Your task to perform on an android device: change text size in settings app Image 0: 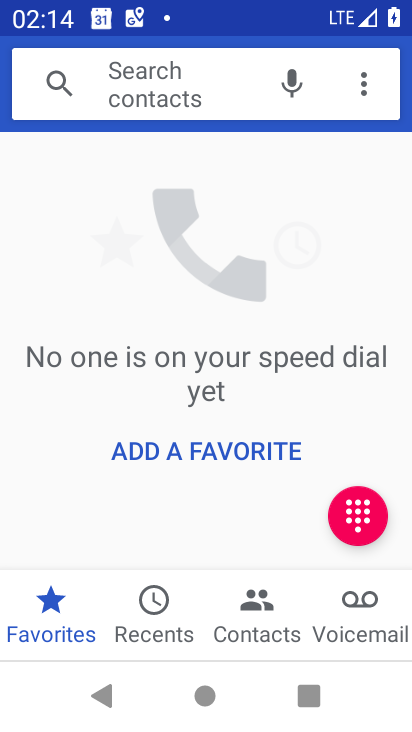
Step 0: press home button
Your task to perform on an android device: change text size in settings app Image 1: 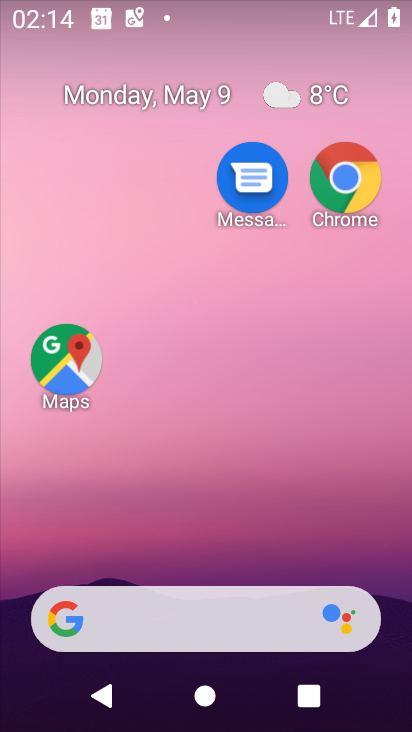
Step 1: drag from (261, 509) to (311, 1)
Your task to perform on an android device: change text size in settings app Image 2: 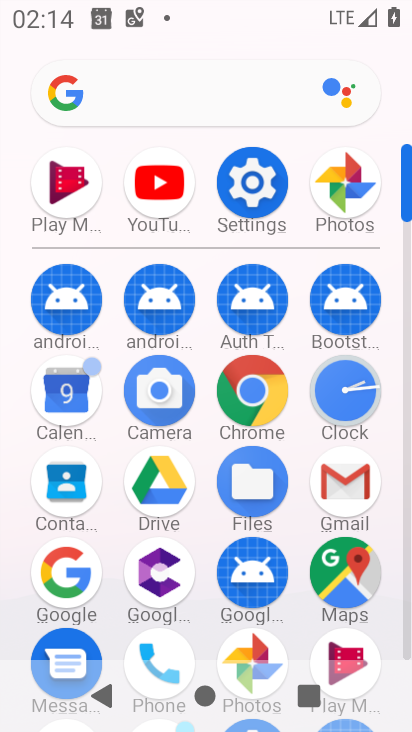
Step 2: click (247, 166)
Your task to perform on an android device: change text size in settings app Image 3: 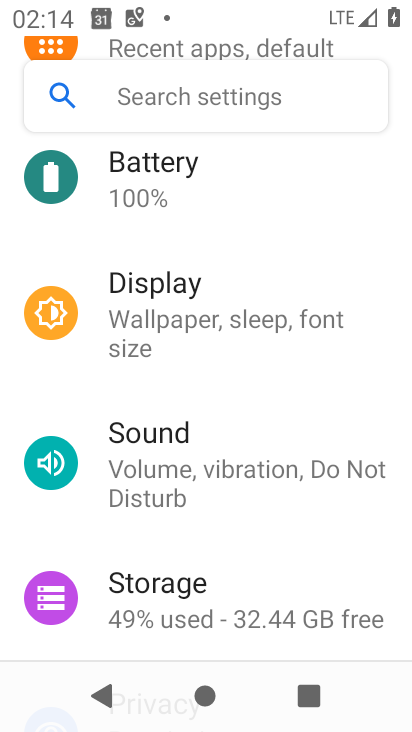
Step 3: click (244, 162)
Your task to perform on an android device: change text size in settings app Image 4: 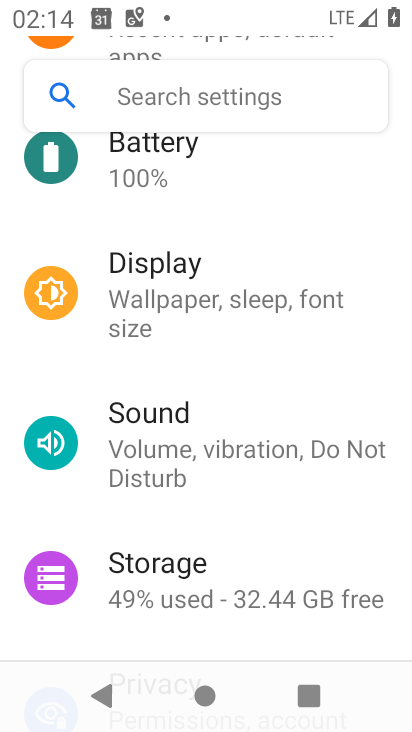
Step 4: drag from (223, 503) to (242, 73)
Your task to perform on an android device: change text size in settings app Image 5: 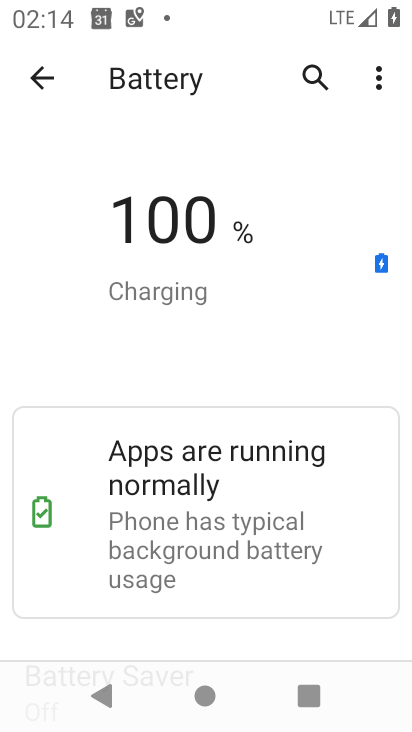
Step 5: click (44, 73)
Your task to perform on an android device: change text size in settings app Image 6: 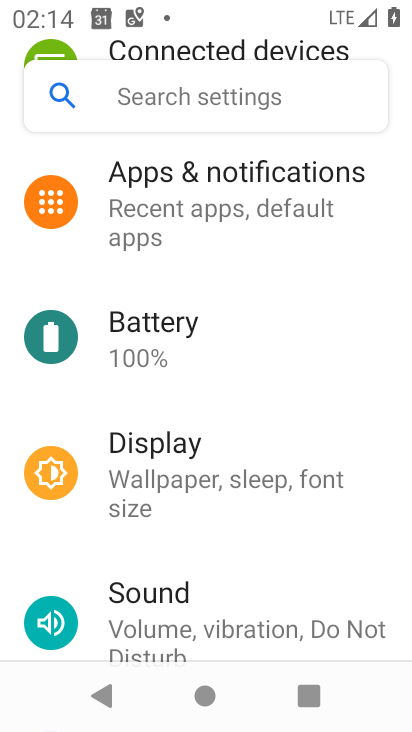
Step 6: click (228, 455)
Your task to perform on an android device: change text size in settings app Image 7: 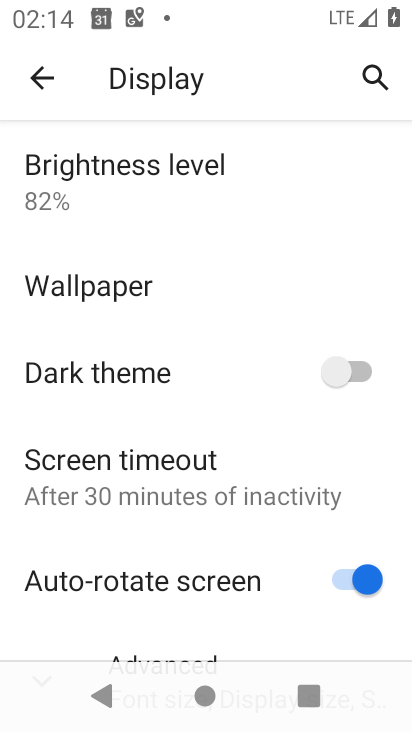
Step 7: drag from (228, 525) to (231, 100)
Your task to perform on an android device: change text size in settings app Image 8: 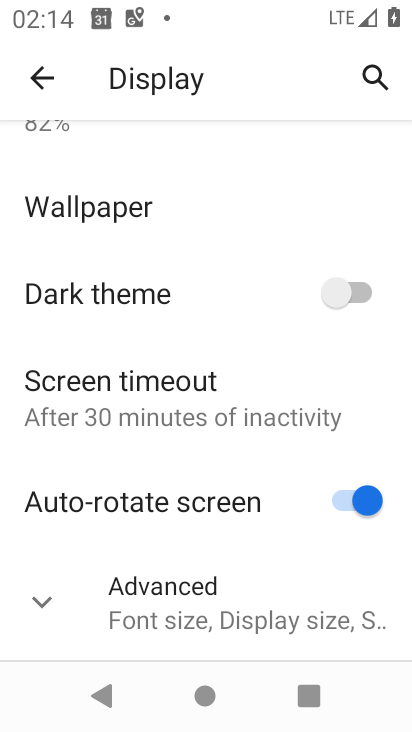
Step 8: click (300, 618)
Your task to perform on an android device: change text size in settings app Image 9: 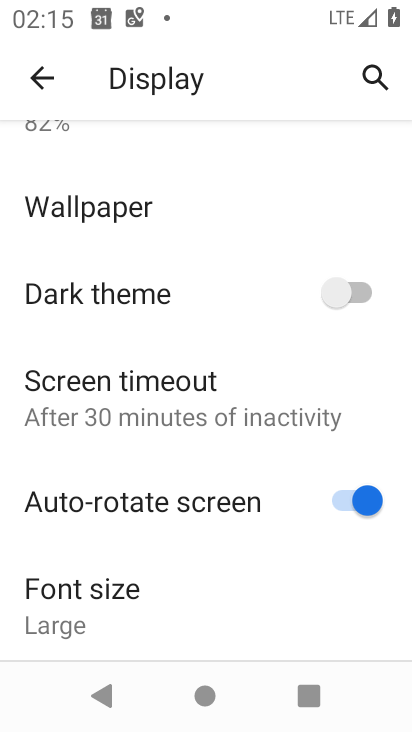
Step 9: click (120, 603)
Your task to perform on an android device: change text size in settings app Image 10: 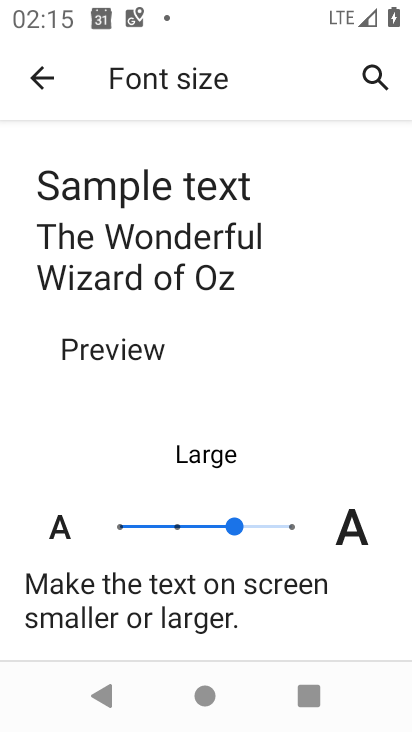
Step 10: click (181, 522)
Your task to perform on an android device: change text size in settings app Image 11: 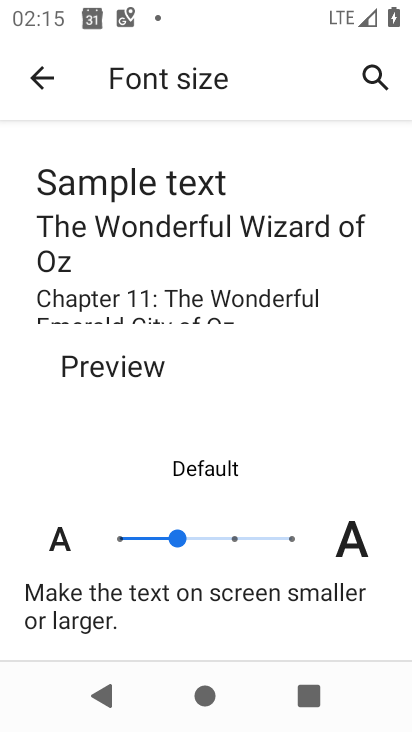
Step 11: task complete